Your task to perform on an android device: turn on improve location accuracy Image 0: 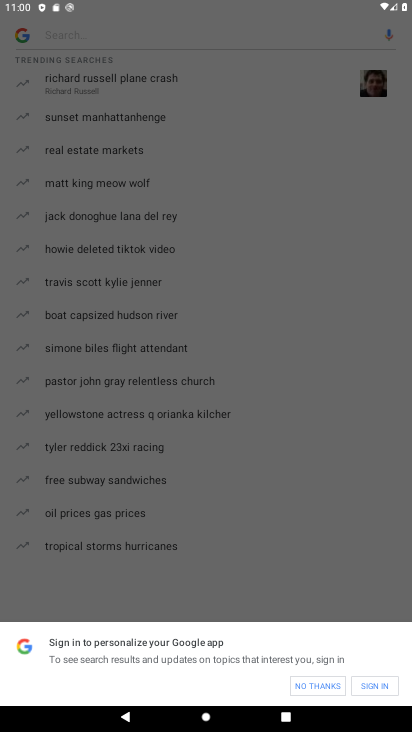
Step 0: press home button
Your task to perform on an android device: turn on improve location accuracy Image 1: 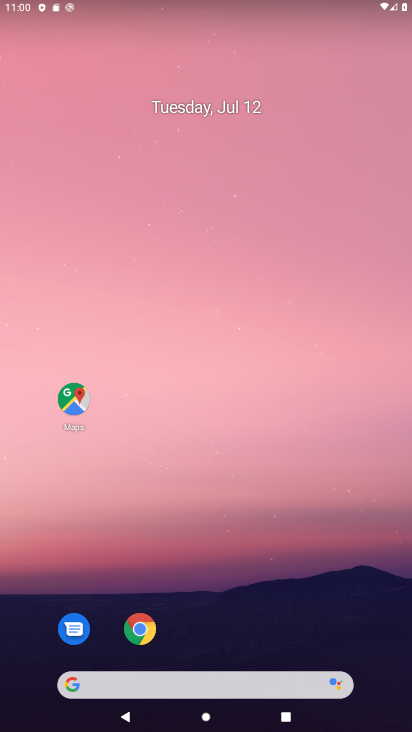
Step 1: drag from (219, 556) to (206, 230)
Your task to perform on an android device: turn on improve location accuracy Image 2: 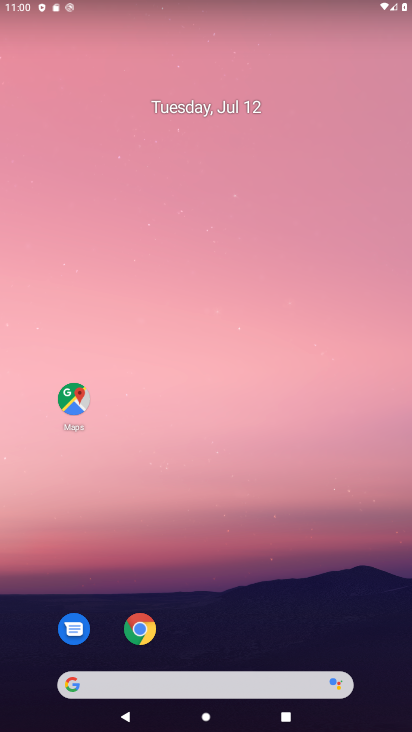
Step 2: drag from (213, 608) to (177, 106)
Your task to perform on an android device: turn on improve location accuracy Image 3: 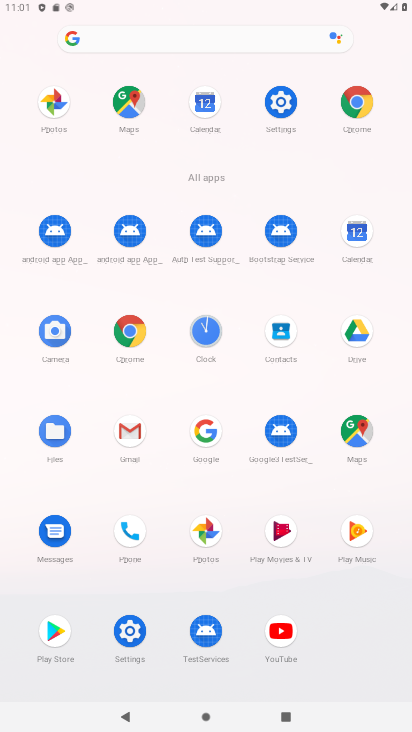
Step 3: click (280, 106)
Your task to perform on an android device: turn on improve location accuracy Image 4: 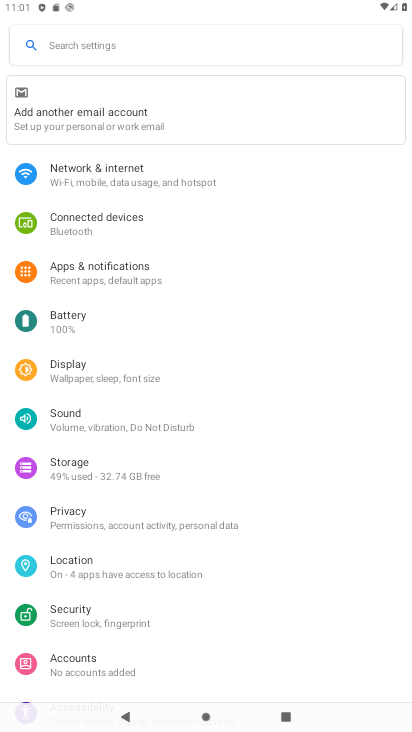
Step 4: click (74, 559)
Your task to perform on an android device: turn on improve location accuracy Image 5: 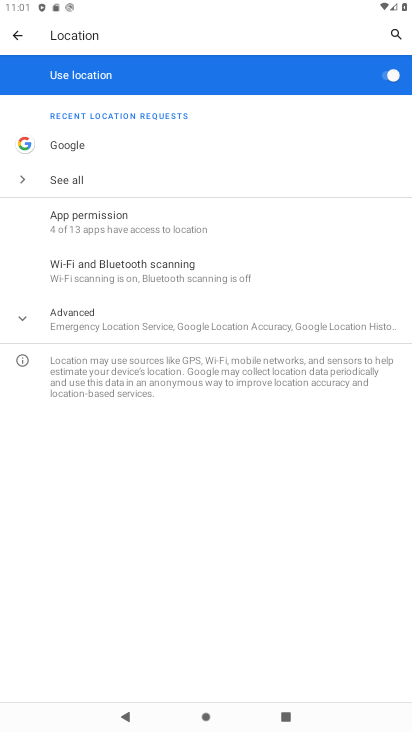
Step 5: click (25, 311)
Your task to perform on an android device: turn on improve location accuracy Image 6: 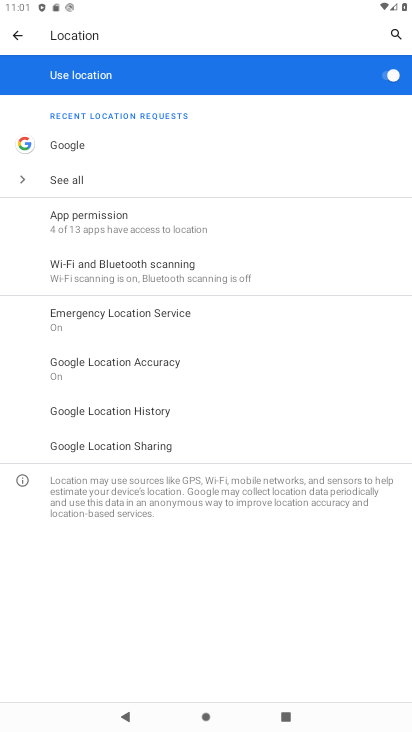
Step 6: click (104, 361)
Your task to perform on an android device: turn on improve location accuracy Image 7: 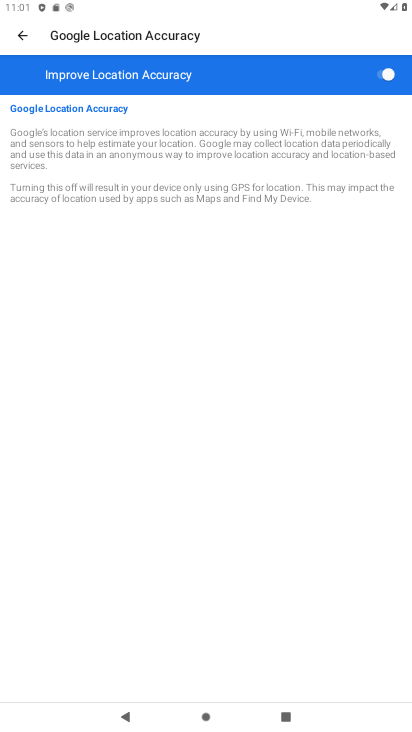
Step 7: task complete